Your task to perform on an android device: Open calendar and show me the first week of next month Image 0: 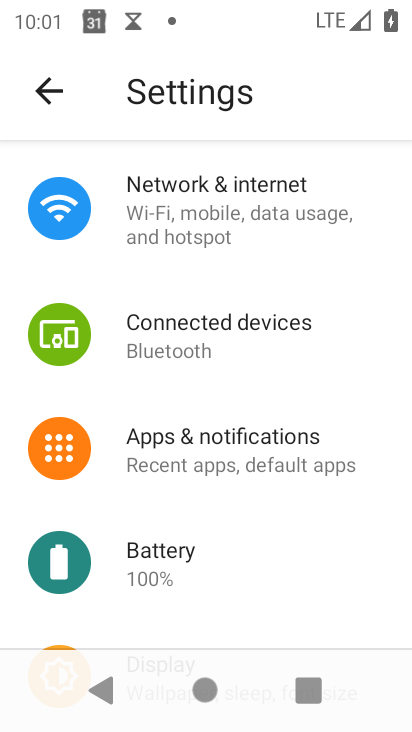
Step 0: press home button
Your task to perform on an android device: Open calendar and show me the first week of next month Image 1: 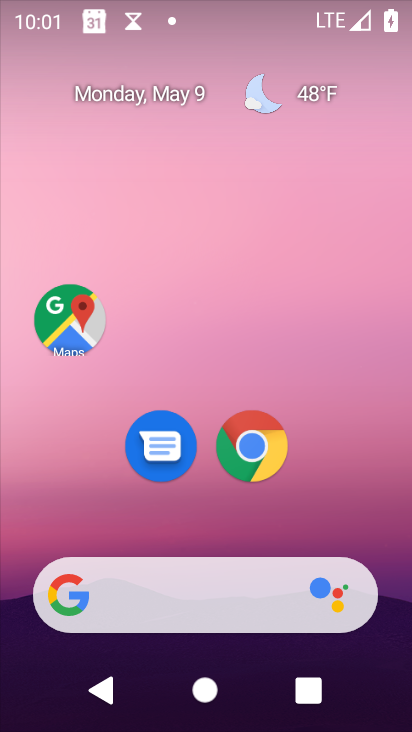
Step 1: click (144, 97)
Your task to perform on an android device: Open calendar and show me the first week of next month Image 2: 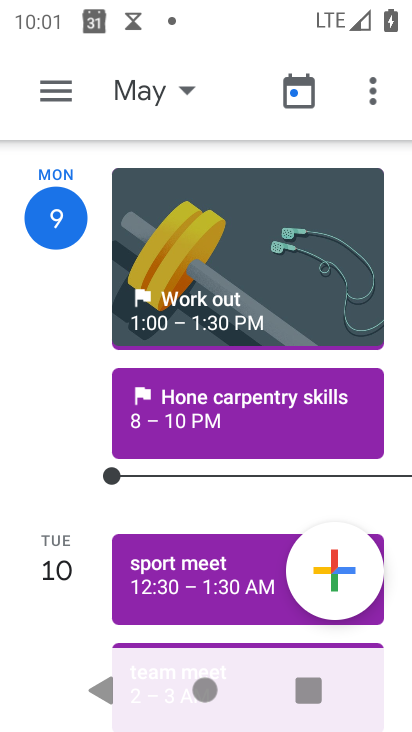
Step 2: click (151, 91)
Your task to perform on an android device: Open calendar and show me the first week of next month Image 3: 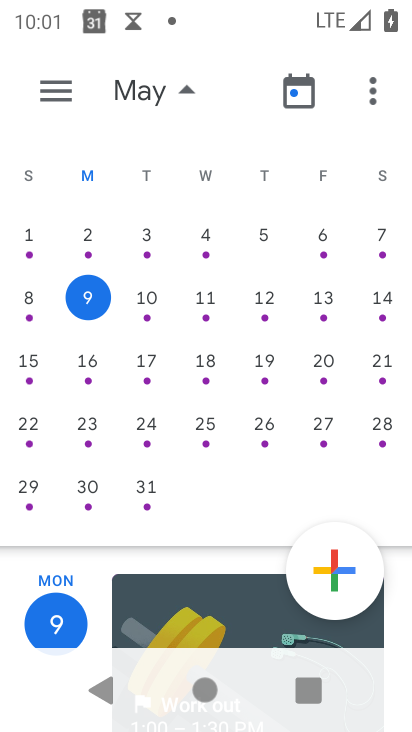
Step 3: drag from (381, 333) to (2, 288)
Your task to perform on an android device: Open calendar and show me the first week of next month Image 4: 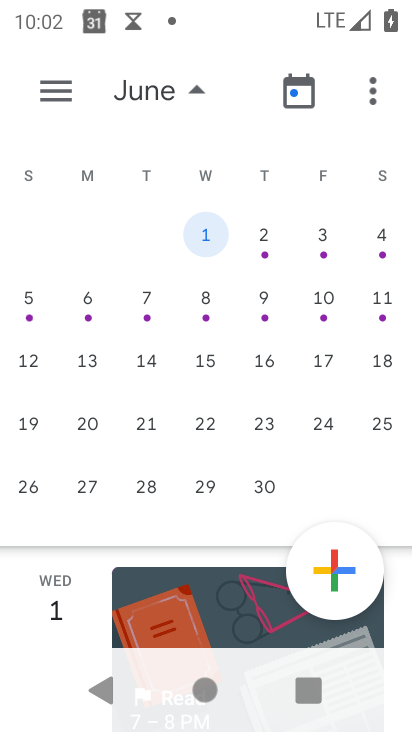
Step 4: click (47, 95)
Your task to perform on an android device: Open calendar and show me the first week of next month Image 5: 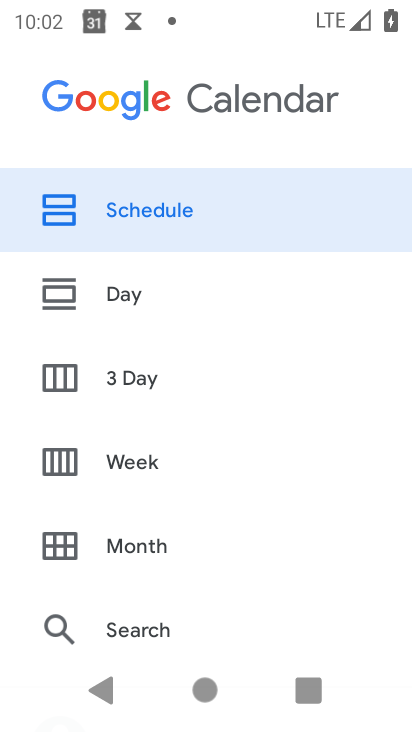
Step 5: click (150, 461)
Your task to perform on an android device: Open calendar and show me the first week of next month Image 6: 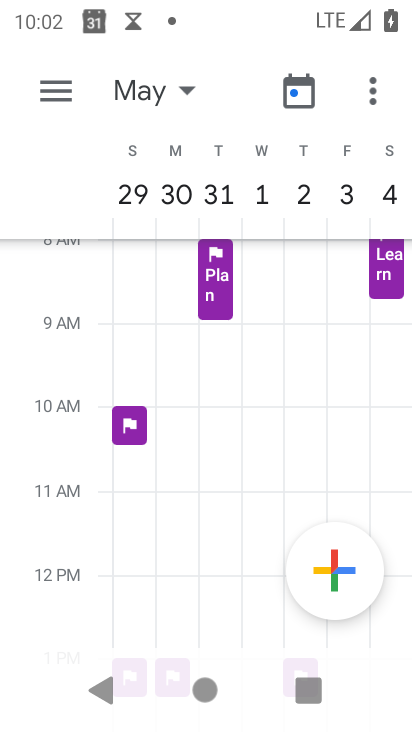
Step 6: task complete